Your task to perform on an android device: change text size in settings app Image 0: 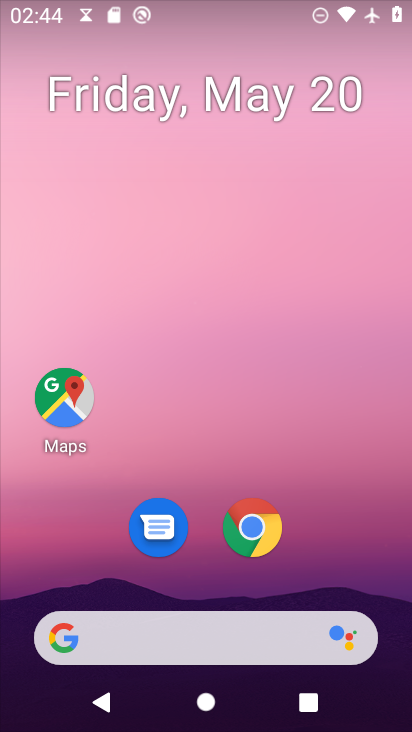
Step 0: press home button
Your task to perform on an android device: change text size in settings app Image 1: 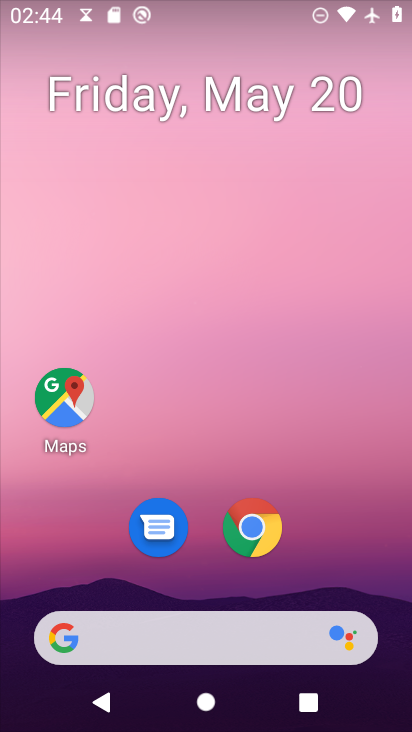
Step 1: drag from (149, 647) to (266, 251)
Your task to perform on an android device: change text size in settings app Image 2: 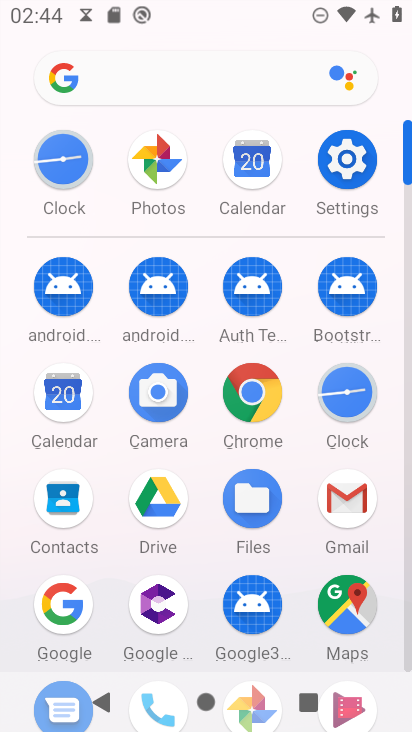
Step 2: click (354, 168)
Your task to perform on an android device: change text size in settings app Image 3: 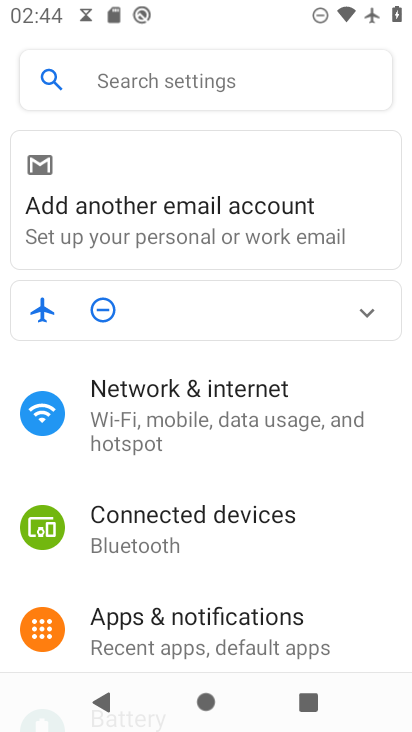
Step 3: drag from (275, 558) to (367, 139)
Your task to perform on an android device: change text size in settings app Image 4: 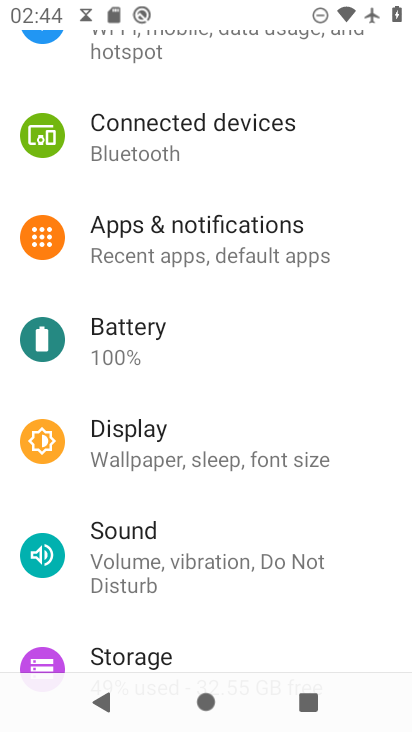
Step 4: click (168, 448)
Your task to perform on an android device: change text size in settings app Image 5: 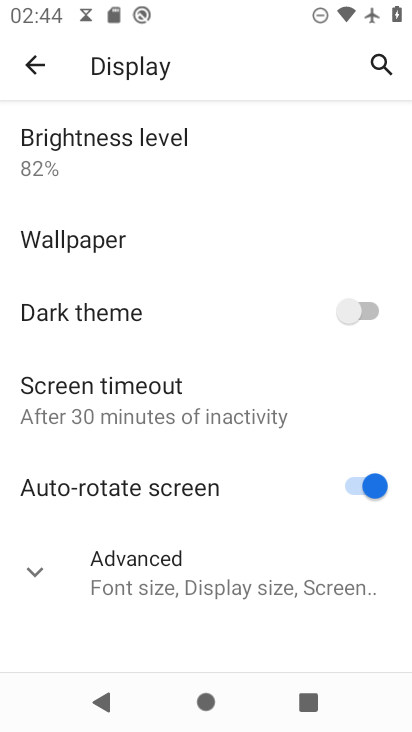
Step 5: click (141, 561)
Your task to perform on an android device: change text size in settings app Image 6: 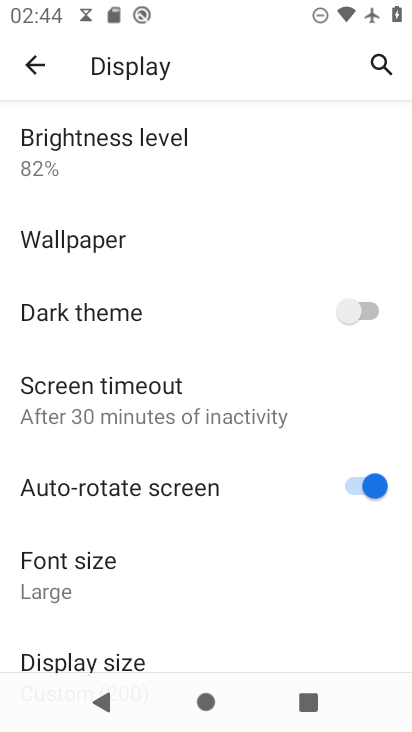
Step 6: click (83, 583)
Your task to perform on an android device: change text size in settings app Image 7: 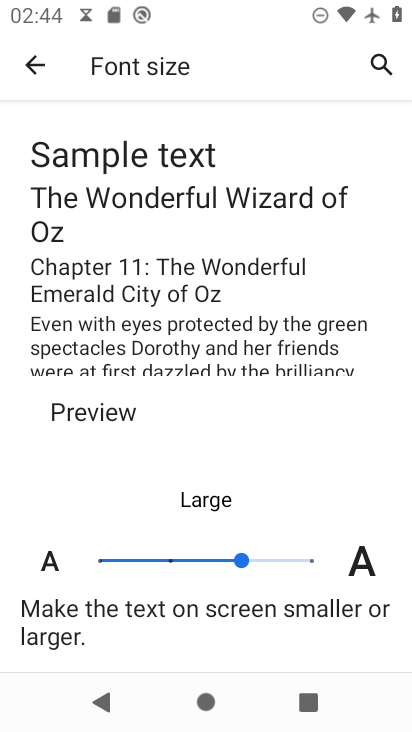
Step 7: click (171, 561)
Your task to perform on an android device: change text size in settings app Image 8: 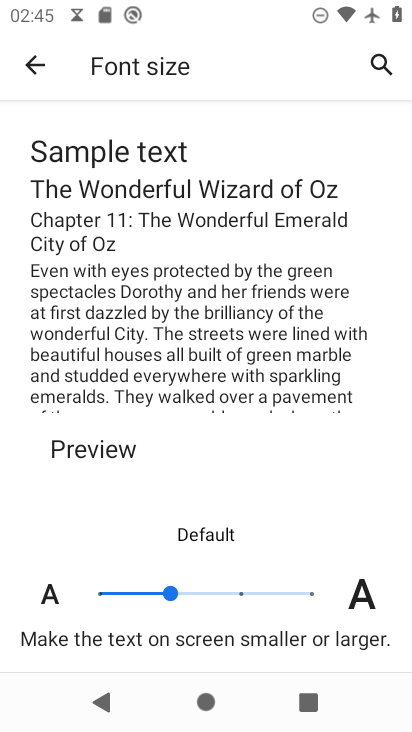
Step 8: task complete